Your task to perform on an android device: toggle javascript in the chrome app Image 0: 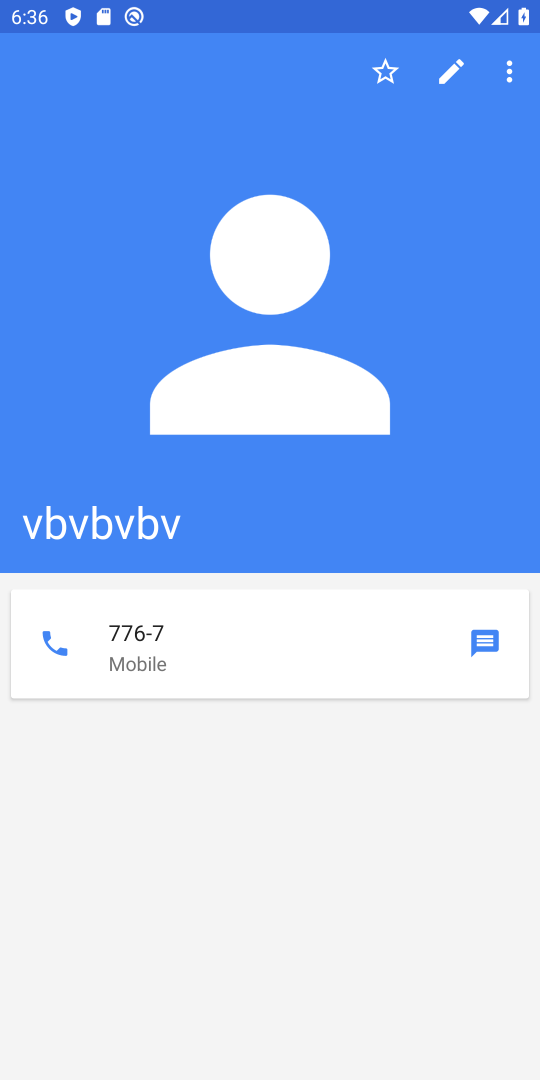
Step 0: press home button
Your task to perform on an android device: toggle javascript in the chrome app Image 1: 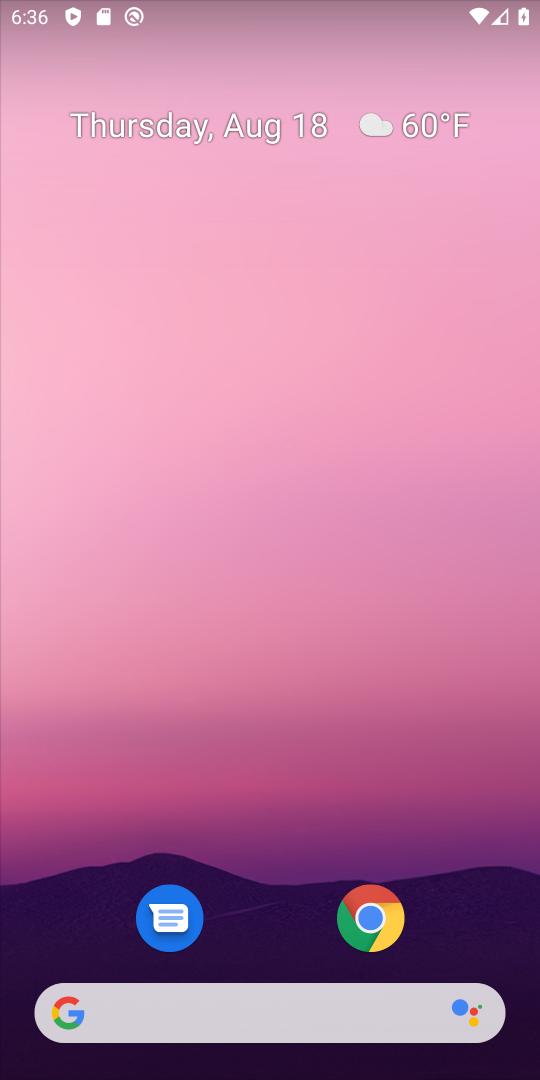
Step 1: click (360, 928)
Your task to perform on an android device: toggle javascript in the chrome app Image 2: 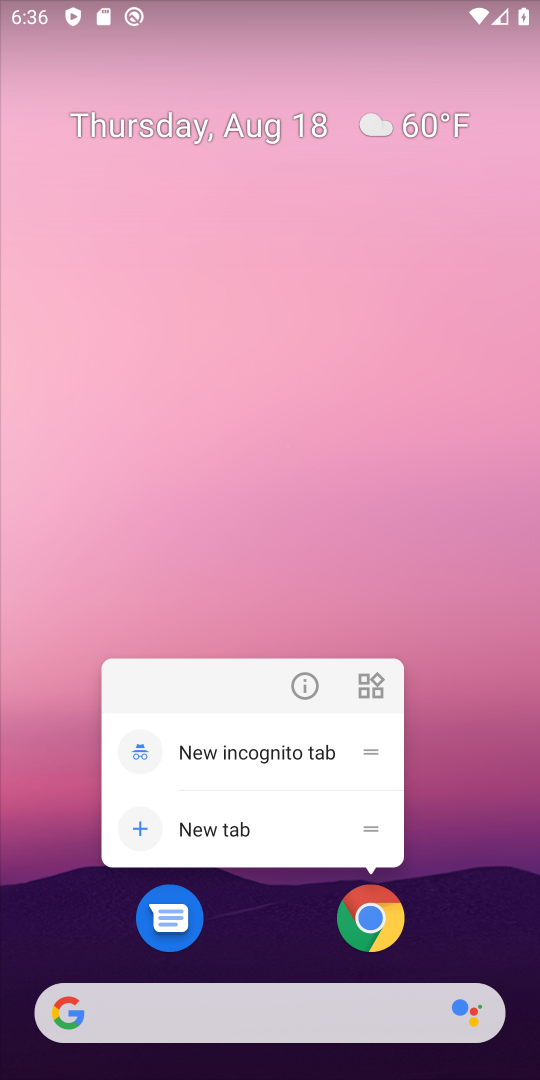
Step 2: click (367, 936)
Your task to perform on an android device: toggle javascript in the chrome app Image 3: 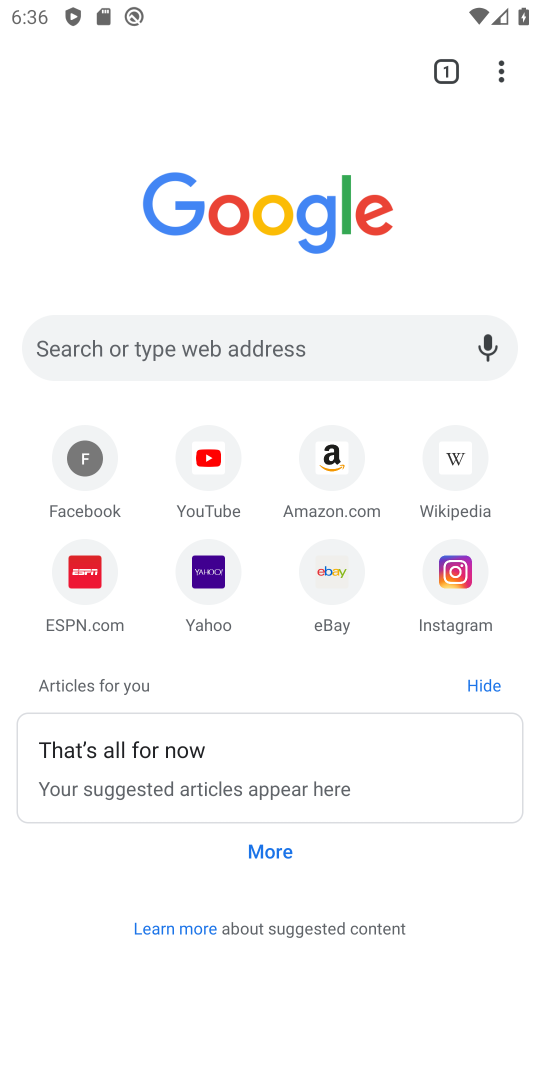
Step 3: drag from (506, 66) to (251, 597)
Your task to perform on an android device: toggle javascript in the chrome app Image 4: 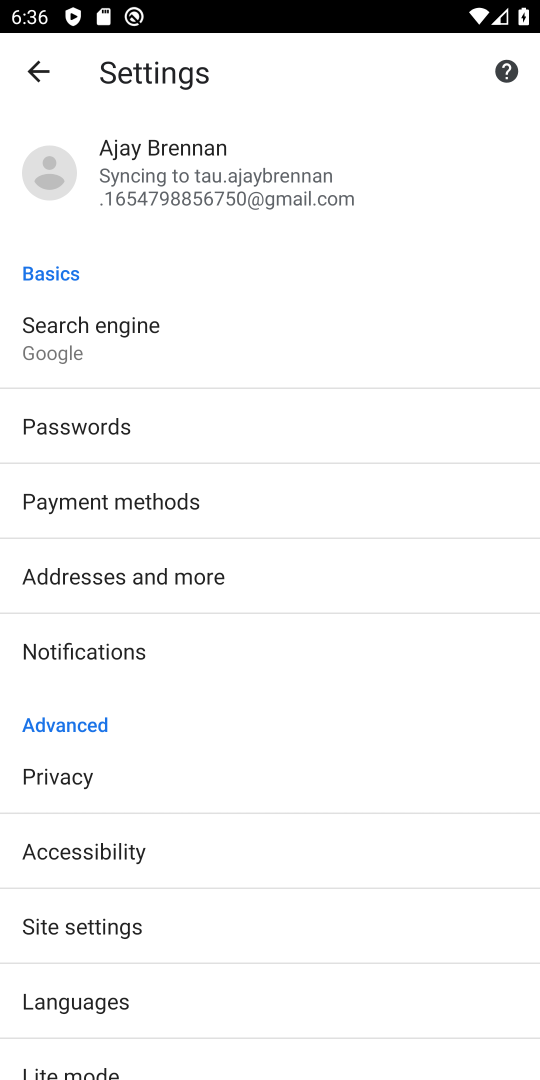
Step 4: click (92, 935)
Your task to perform on an android device: toggle javascript in the chrome app Image 5: 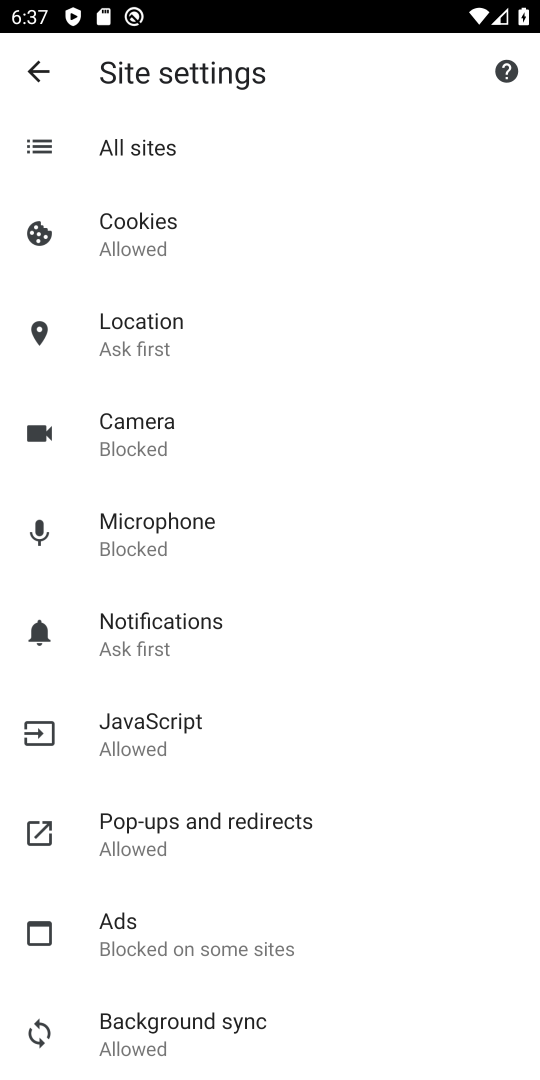
Step 5: click (138, 742)
Your task to perform on an android device: toggle javascript in the chrome app Image 6: 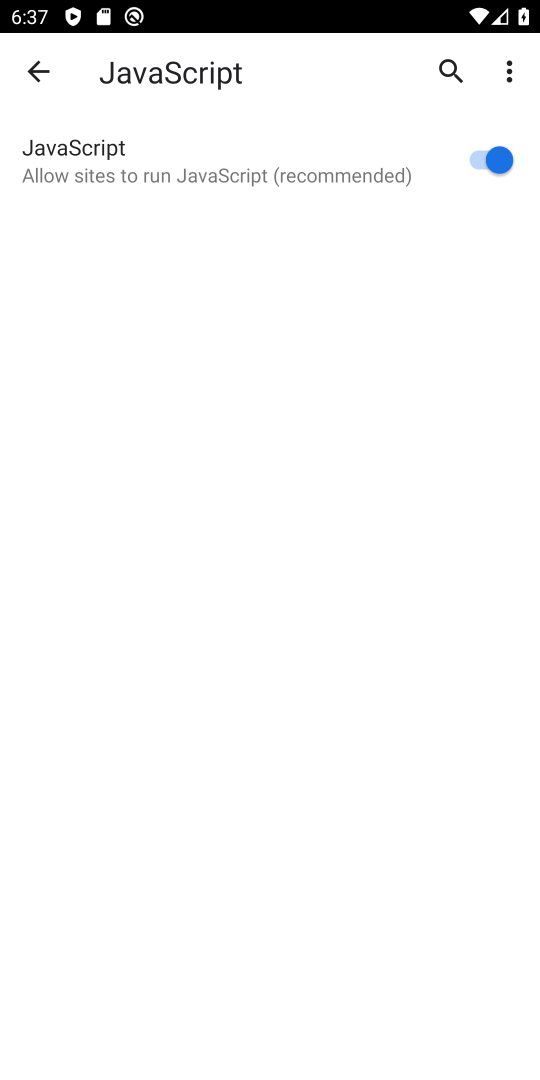
Step 6: click (500, 162)
Your task to perform on an android device: toggle javascript in the chrome app Image 7: 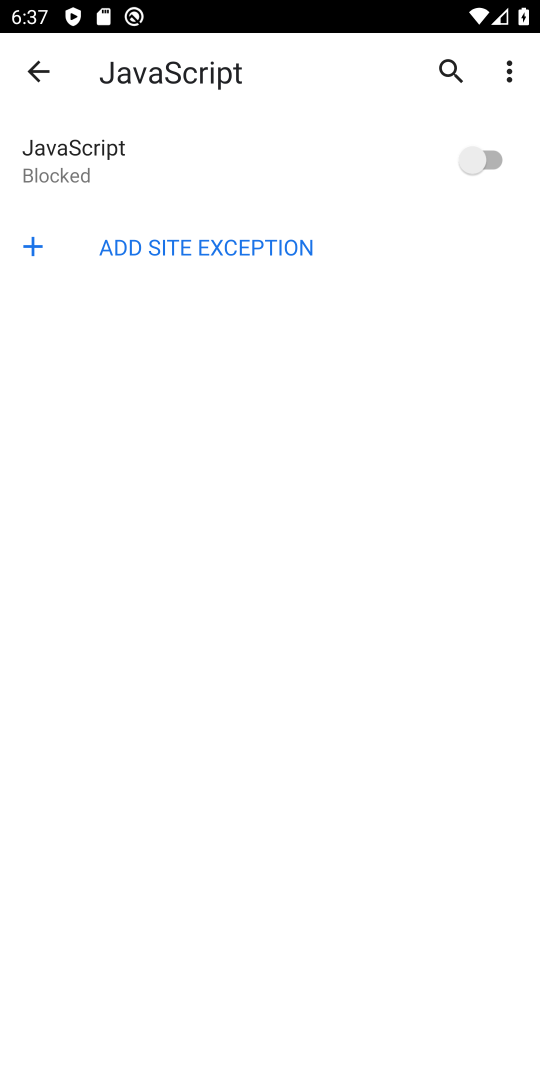
Step 7: task complete